Your task to perform on an android device: What's the weather? Image 0: 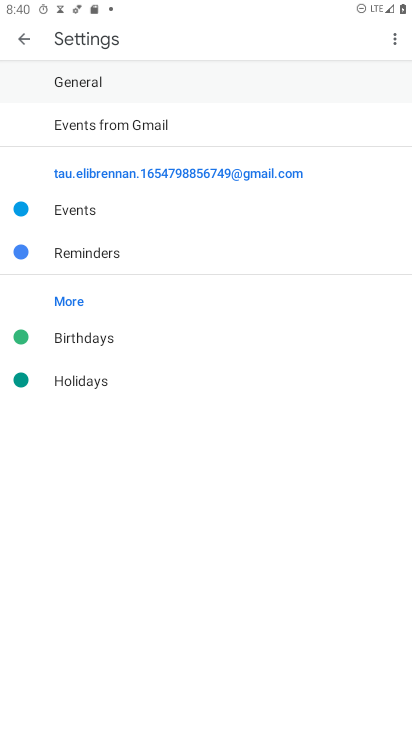
Step 0: press home button
Your task to perform on an android device: What's the weather? Image 1: 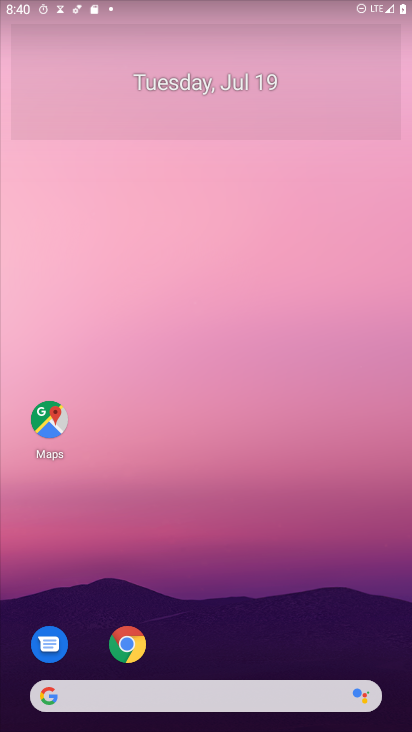
Step 1: click (102, 691)
Your task to perform on an android device: What's the weather? Image 2: 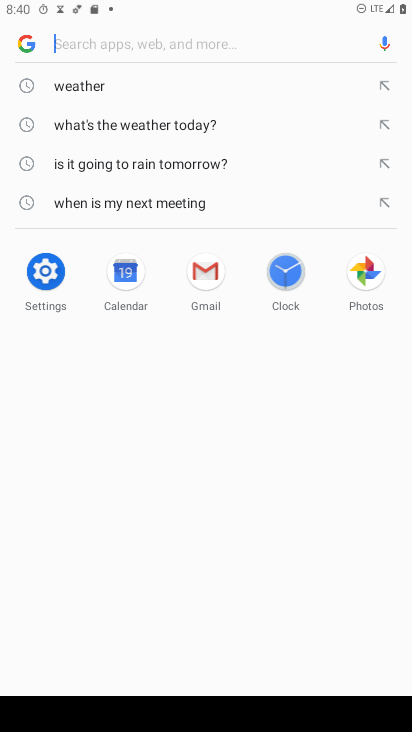
Step 2: type "What's the weather?"
Your task to perform on an android device: What's the weather? Image 3: 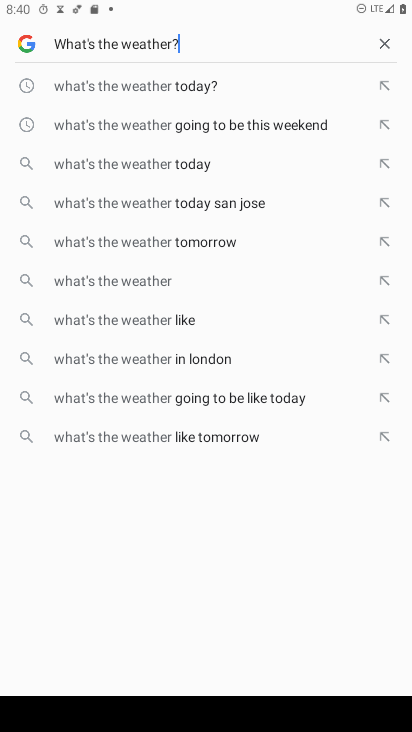
Step 3: type ""
Your task to perform on an android device: What's the weather? Image 4: 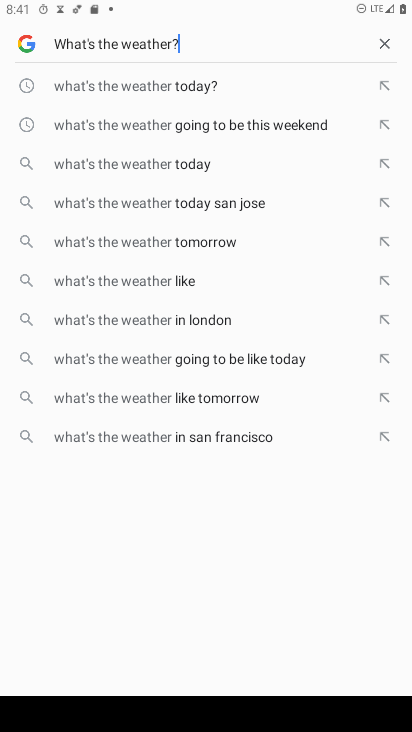
Step 4: type ""
Your task to perform on an android device: What's the weather? Image 5: 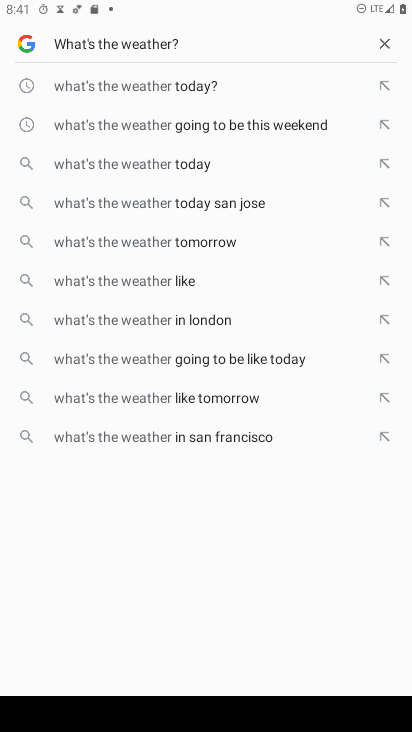
Step 5: type ""
Your task to perform on an android device: What's the weather? Image 6: 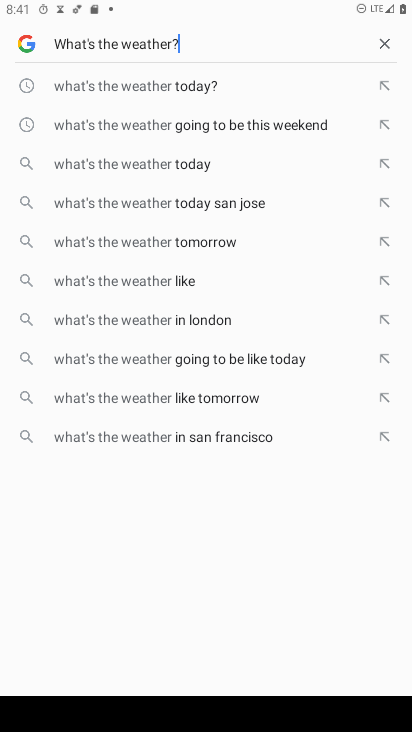
Step 6: task complete